Your task to perform on an android device: make emails show in primary in the gmail app Image 0: 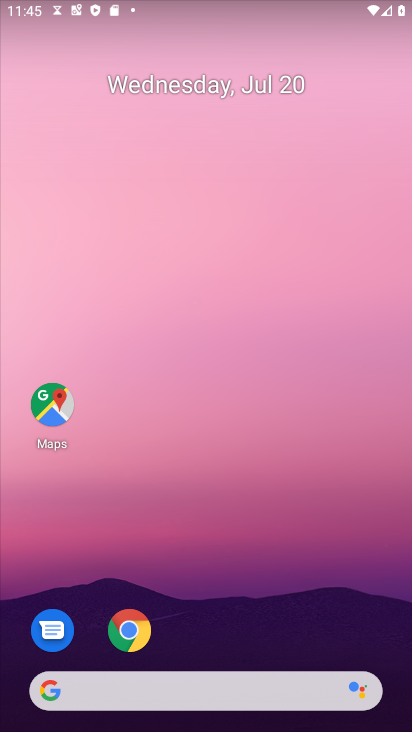
Step 0: drag from (85, 290) to (218, 44)
Your task to perform on an android device: make emails show in primary in the gmail app Image 1: 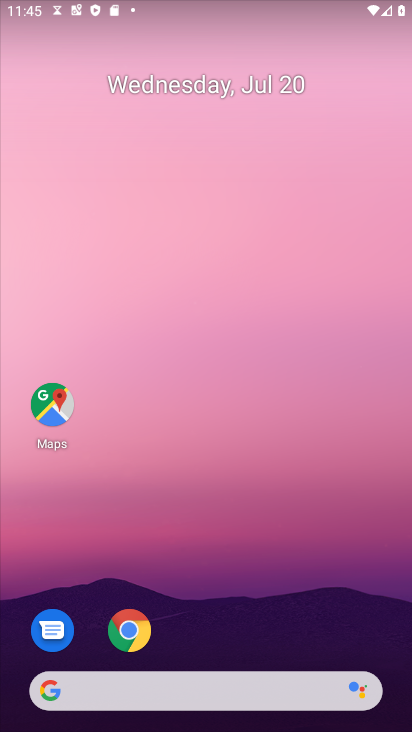
Step 1: drag from (70, 537) to (156, 268)
Your task to perform on an android device: make emails show in primary in the gmail app Image 2: 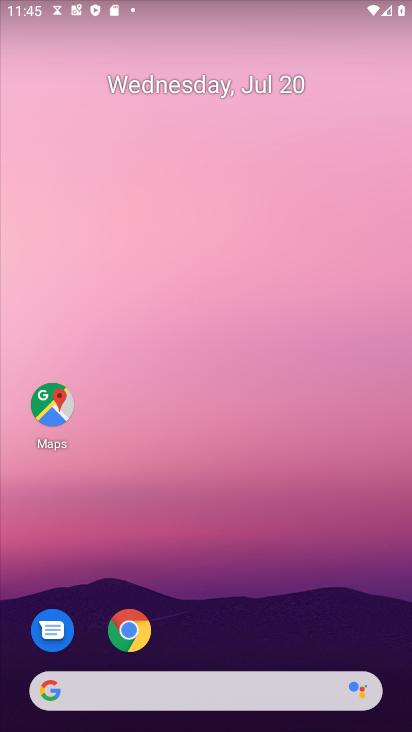
Step 2: drag from (43, 599) to (150, 190)
Your task to perform on an android device: make emails show in primary in the gmail app Image 3: 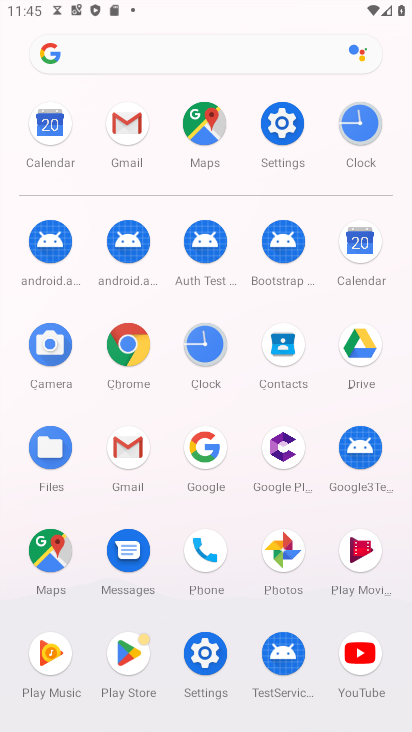
Step 3: click (127, 458)
Your task to perform on an android device: make emails show in primary in the gmail app Image 4: 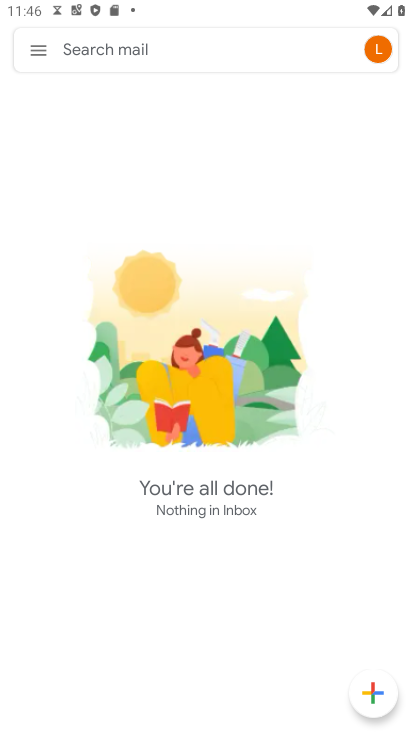
Step 4: task complete